Your task to perform on an android device: Open notification settings Image 0: 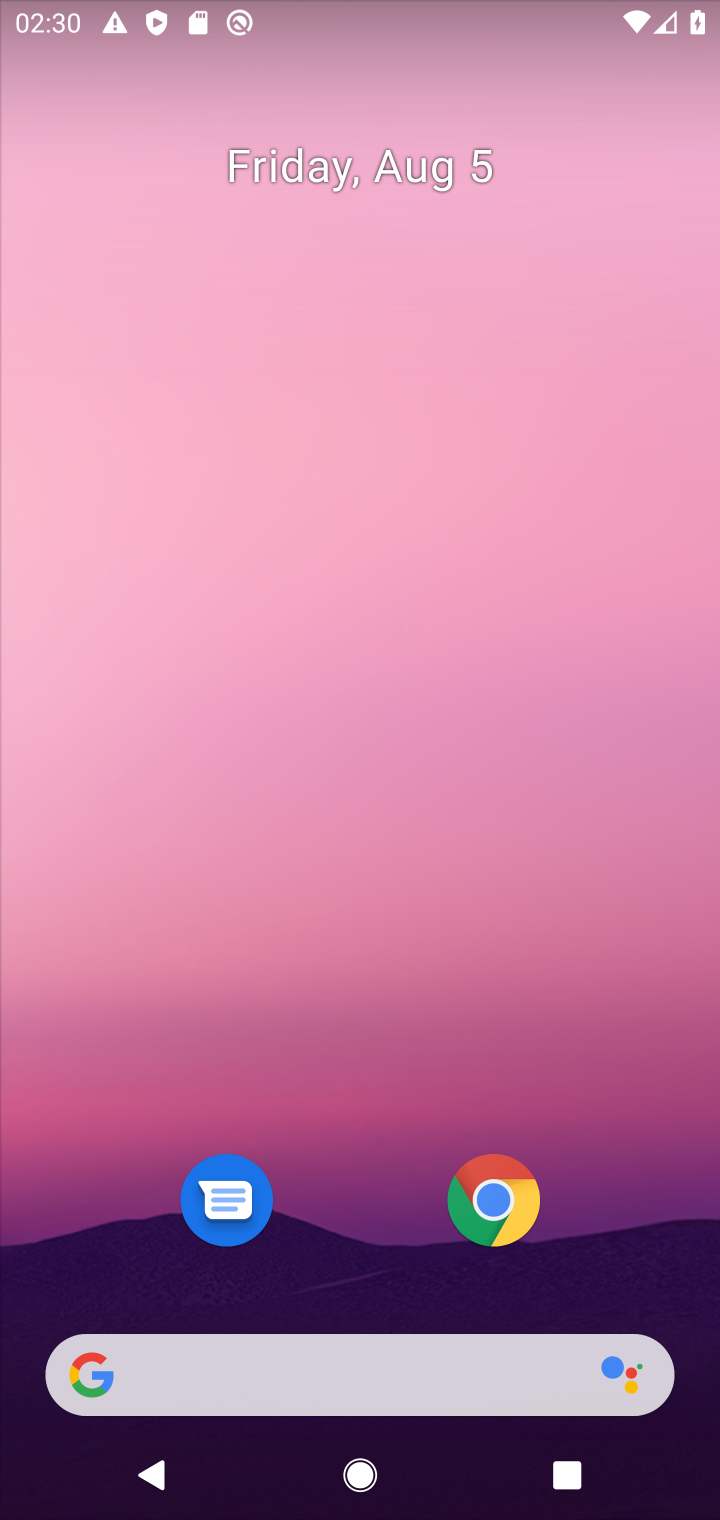
Step 0: drag from (360, 849) to (360, 161)
Your task to perform on an android device: Open notification settings Image 1: 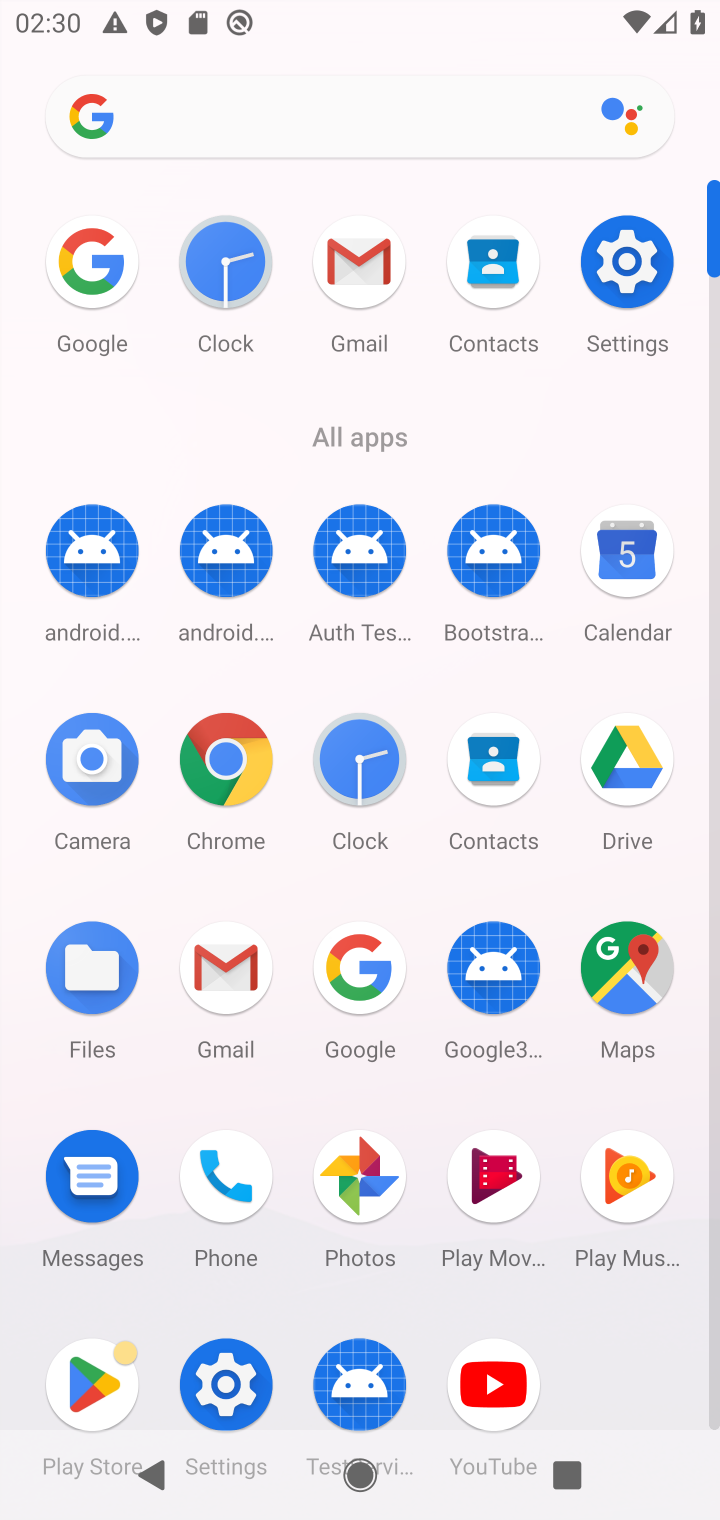
Step 1: click (619, 292)
Your task to perform on an android device: Open notification settings Image 2: 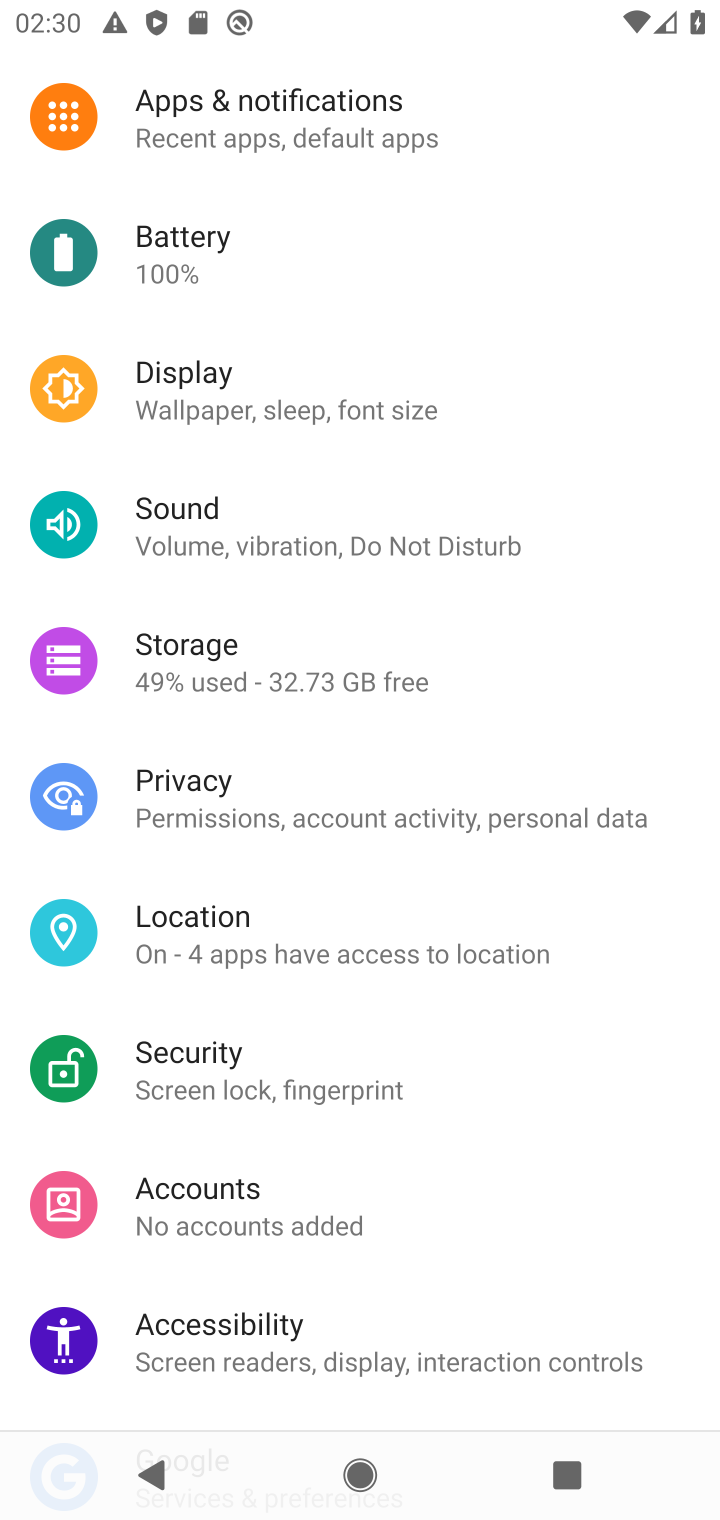
Step 2: click (289, 149)
Your task to perform on an android device: Open notification settings Image 3: 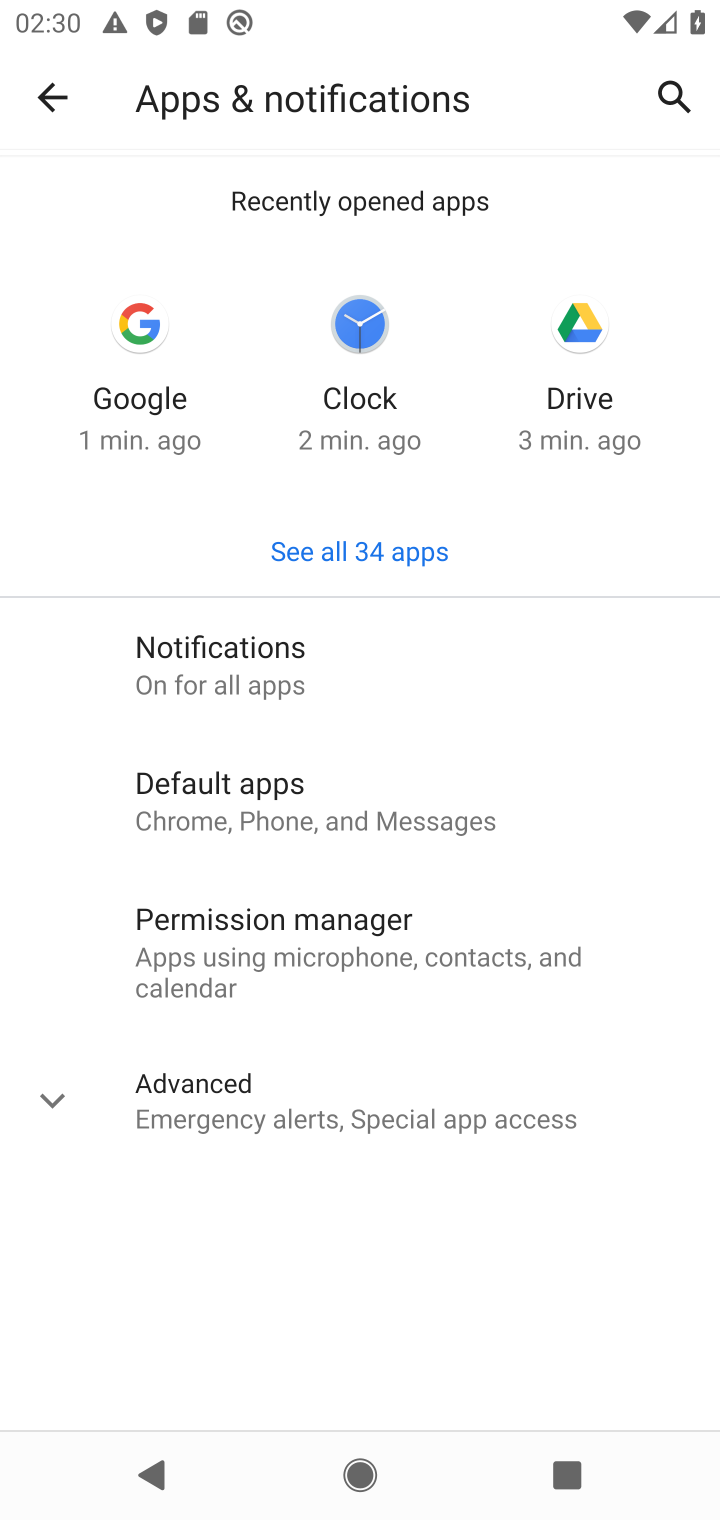
Step 3: click (341, 674)
Your task to perform on an android device: Open notification settings Image 4: 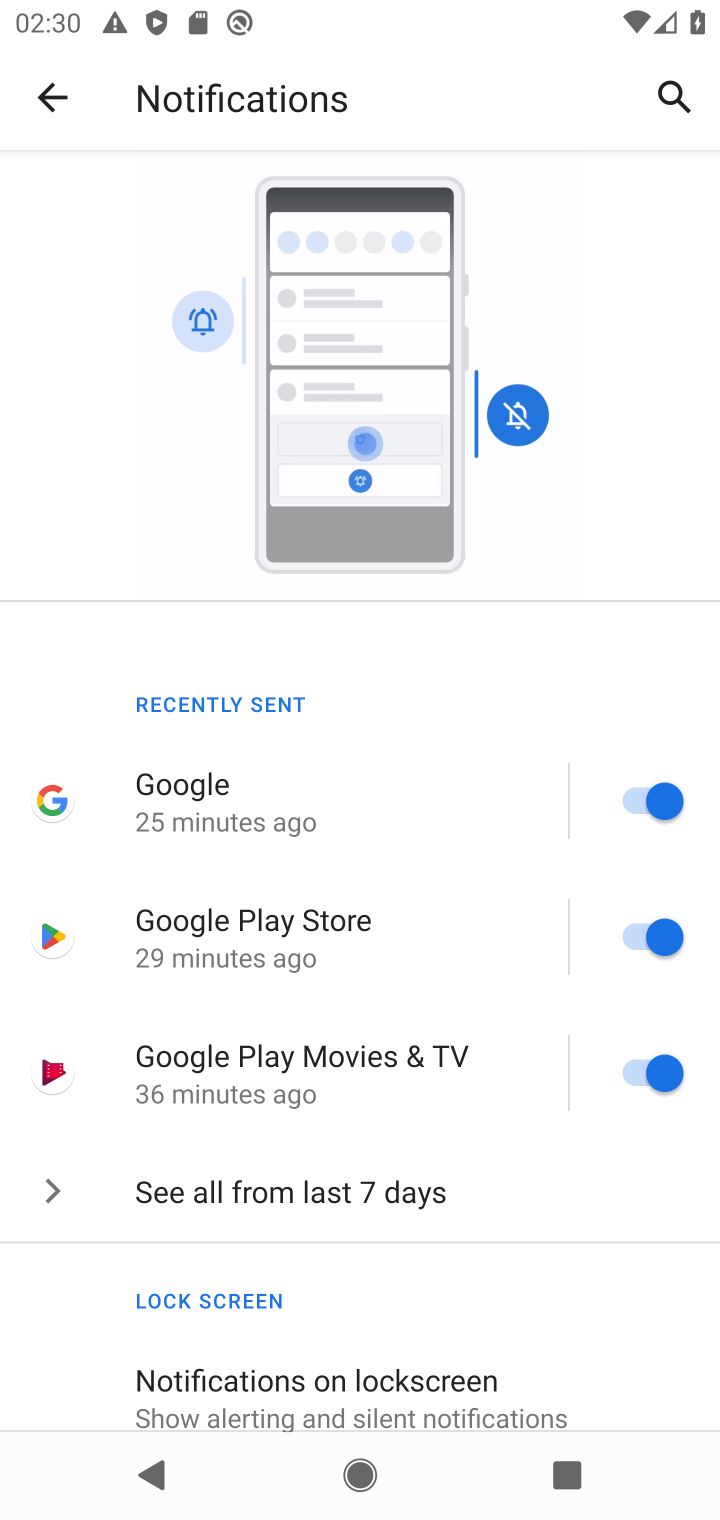
Step 4: click (433, 348)
Your task to perform on an android device: Open notification settings Image 5: 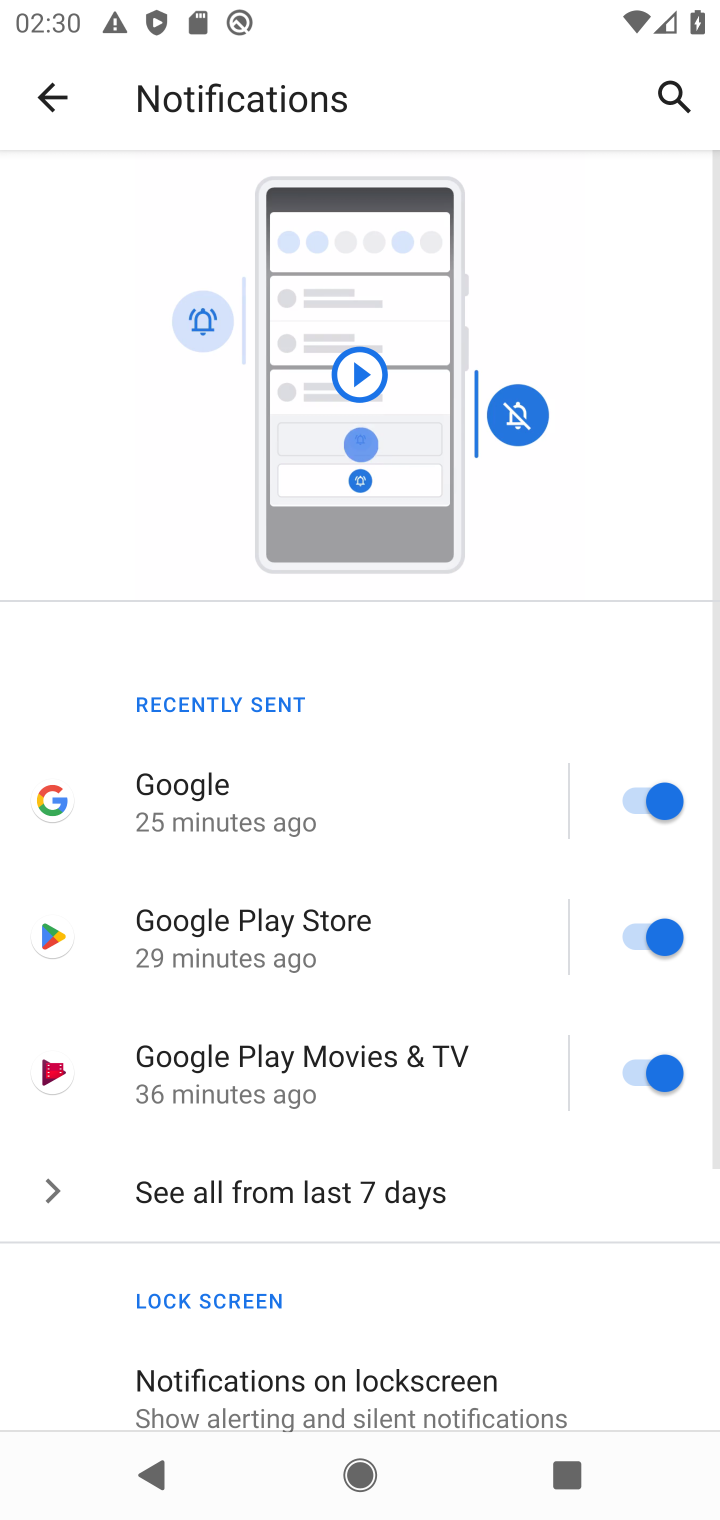
Step 5: task complete